Your task to perform on an android device: check out phone information Image 0: 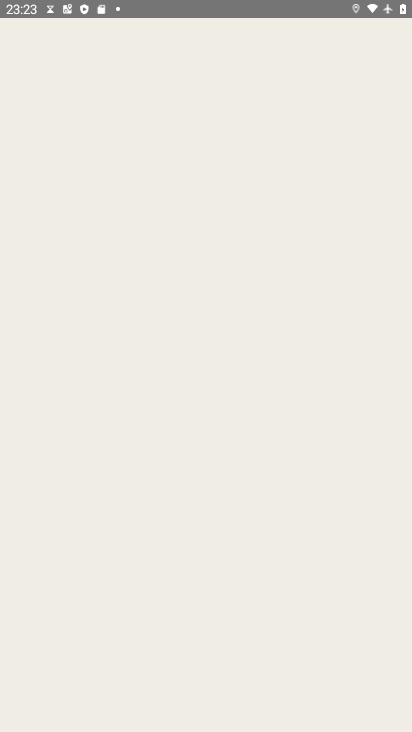
Step 0: press home button
Your task to perform on an android device: check out phone information Image 1: 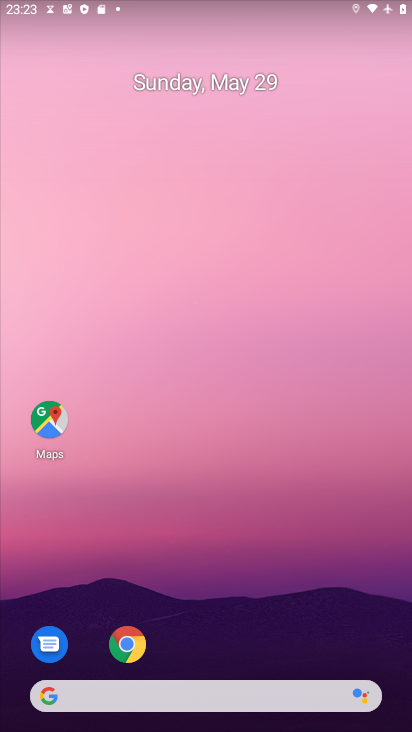
Step 1: drag from (239, 638) to (266, 268)
Your task to perform on an android device: check out phone information Image 2: 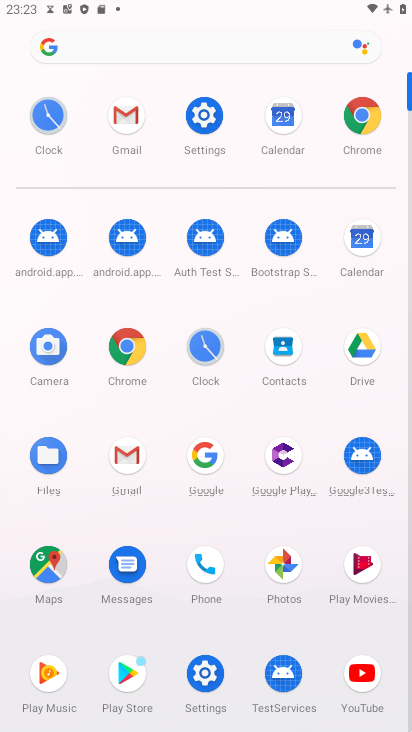
Step 2: click (204, 676)
Your task to perform on an android device: check out phone information Image 3: 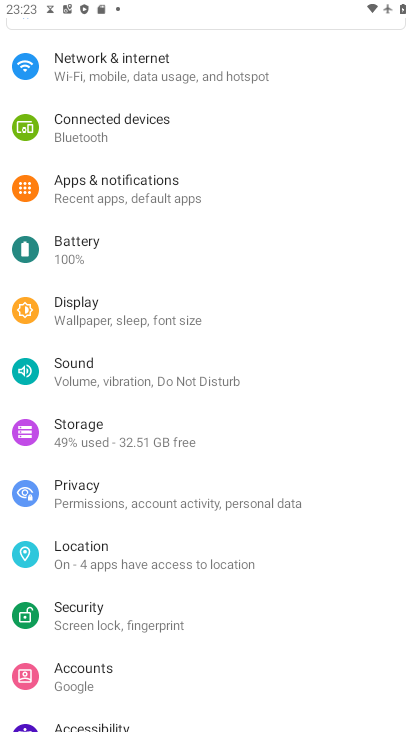
Step 3: drag from (235, 645) to (352, 104)
Your task to perform on an android device: check out phone information Image 4: 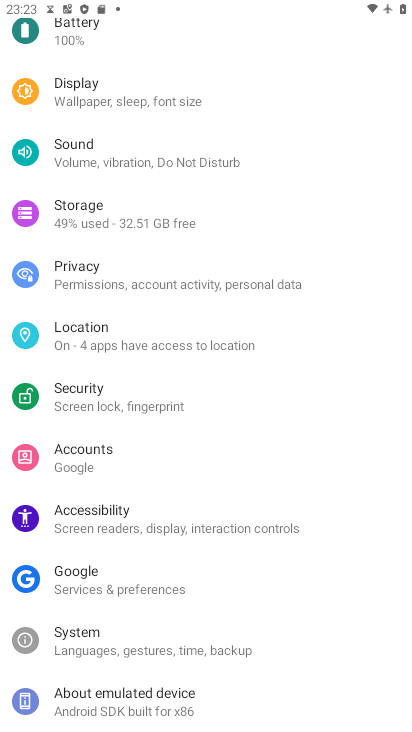
Step 4: click (135, 701)
Your task to perform on an android device: check out phone information Image 5: 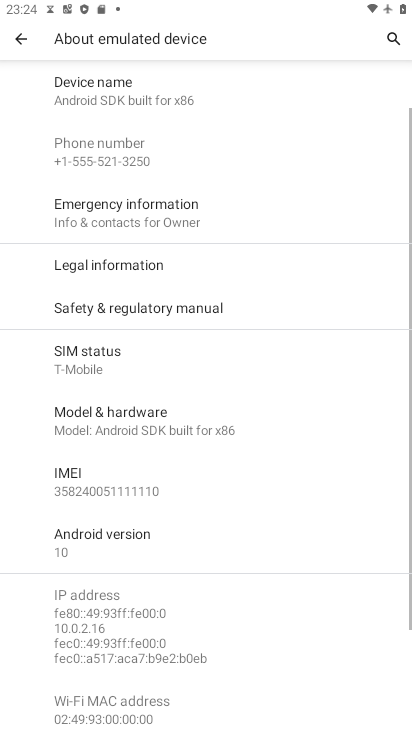
Step 5: task complete